Your task to perform on an android device: search for starred emails in the gmail app Image 0: 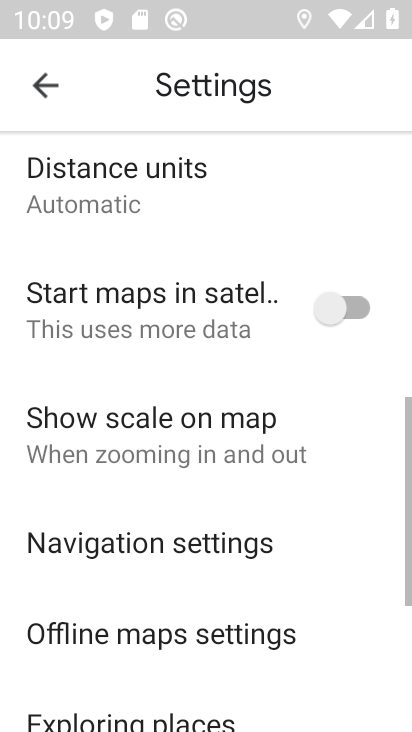
Step 0: press home button
Your task to perform on an android device: search for starred emails in the gmail app Image 1: 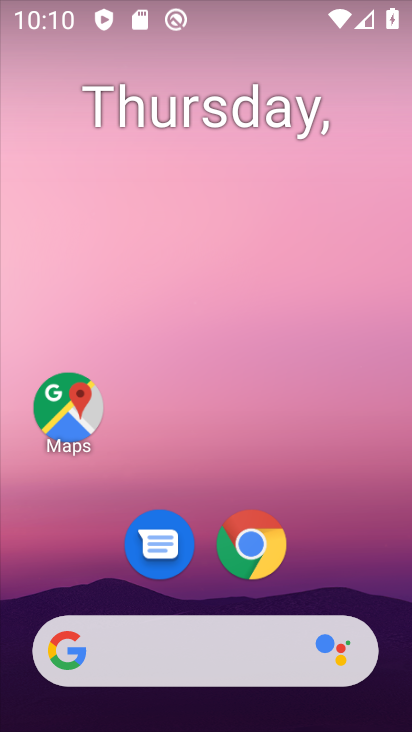
Step 1: drag from (209, 591) to (234, 8)
Your task to perform on an android device: search for starred emails in the gmail app Image 2: 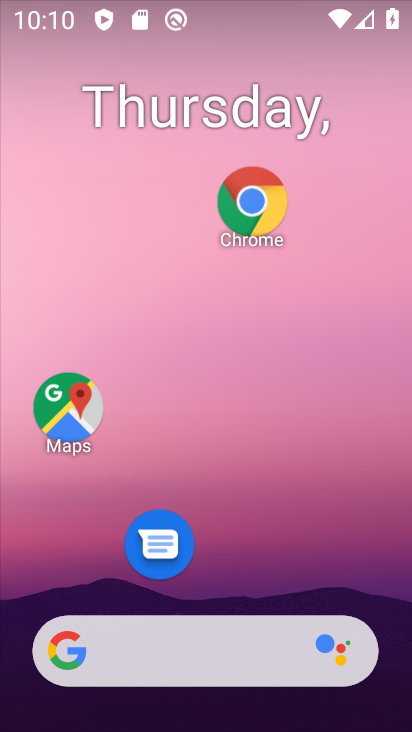
Step 2: drag from (329, 577) to (411, 6)
Your task to perform on an android device: search for starred emails in the gmail app Image 3: 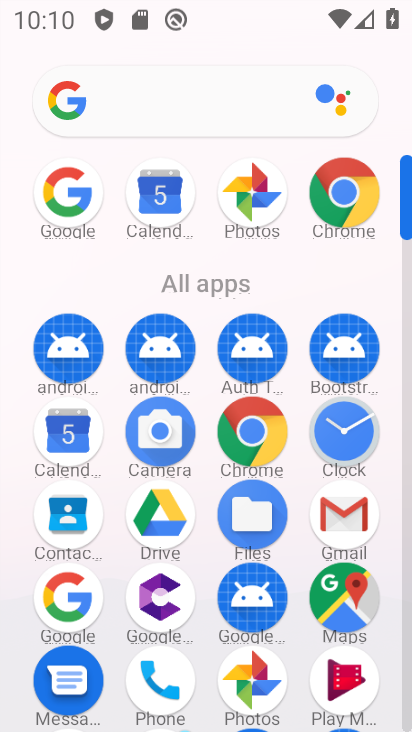
Step 3: click (341, 509)
Your task to perform on an android device: search for starred emails in the gmail app Image 4: 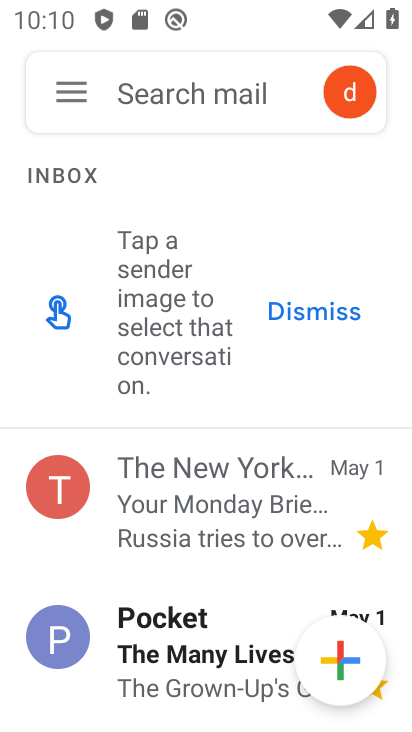
Step 4: drag from (212, 522) to (238, 128)
Your task to perform on an android device: search for starred emails in the gmail app Image 5: 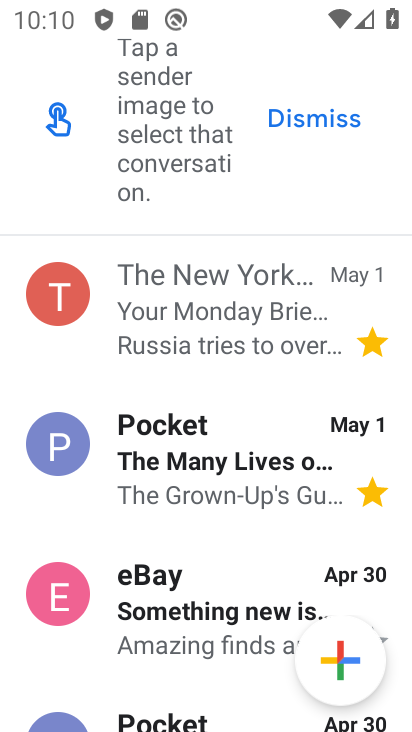
Step 5: drag from (219, 639) to (263, 181)
Your task to perform on an android device: search for starred emails in the gmail app Image 6: 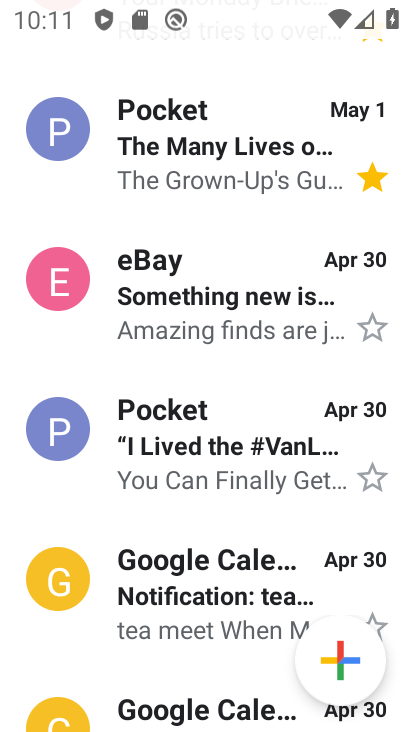
Step 6: drag from (199, 655) to (234, 278)
Your task to perform on an android device: search for starred emails in the gmail app Image 7: 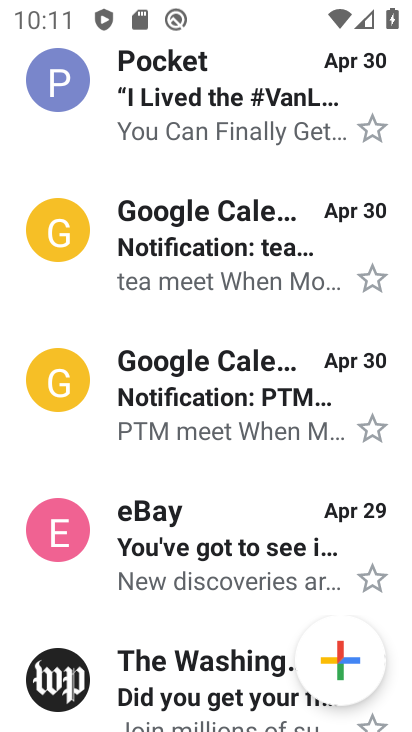
Step 7: click (365, 428)
Your task to perform on an android device: search for starred emails in the gmail app Image 8: 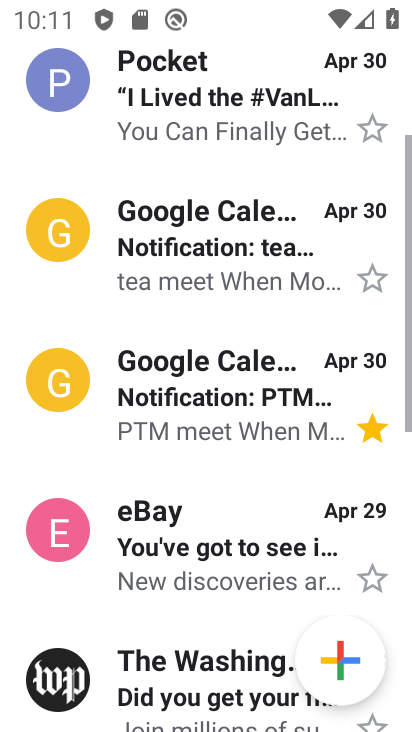
Step 8: task complete